Your task to perform on an android device: Open Wikipedia Image 0: 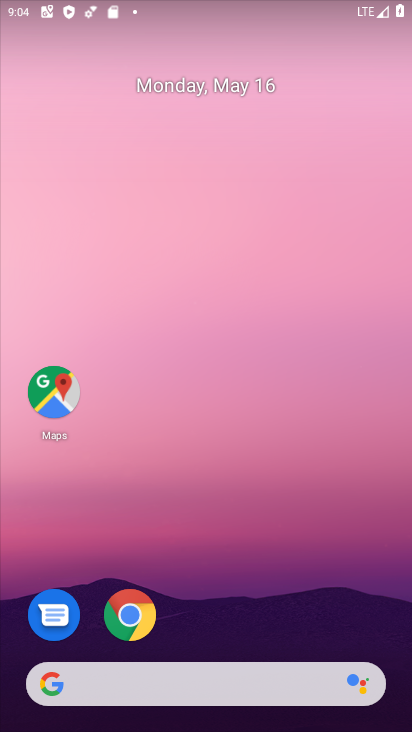
Step 0: drag from (208, 633) to (197, 187)
Your task to perform on an android device: Open Wikipedia Image 1: 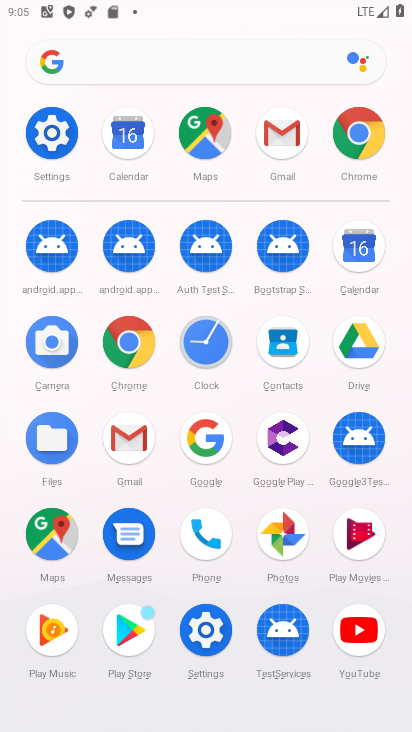
Step 1: click (345, 168)
Your task to perform on an android device: Open Wikipedia Image 2: 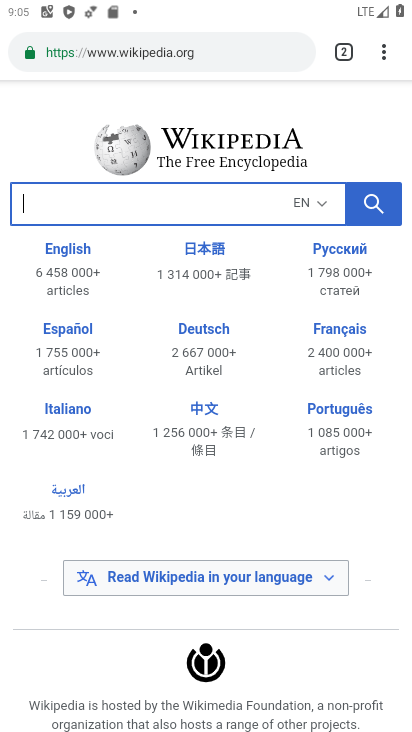
Step 2: task complete